Your task to perform on an android device: Go to ESPN.com Image 0: 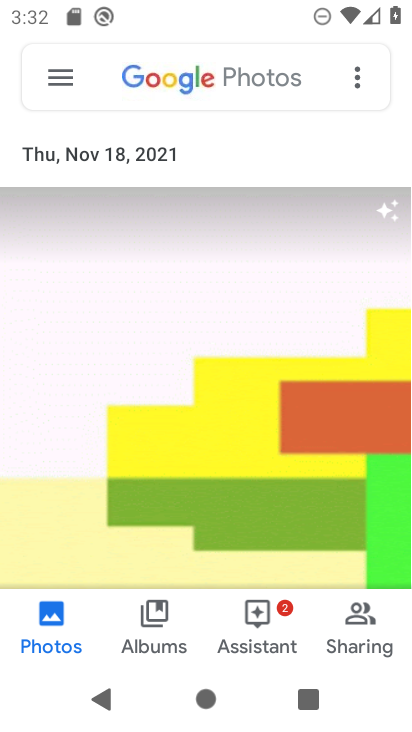
Step 0: press home button
Your task to perform on an android device: Go to ESPN.com Image 1: 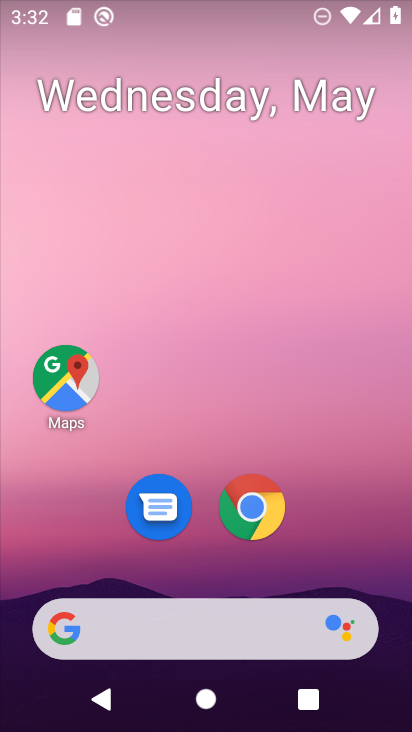
Step 1: click (255, 506)
Your task to perform on an android device: Go to ESPN.com Image 2: 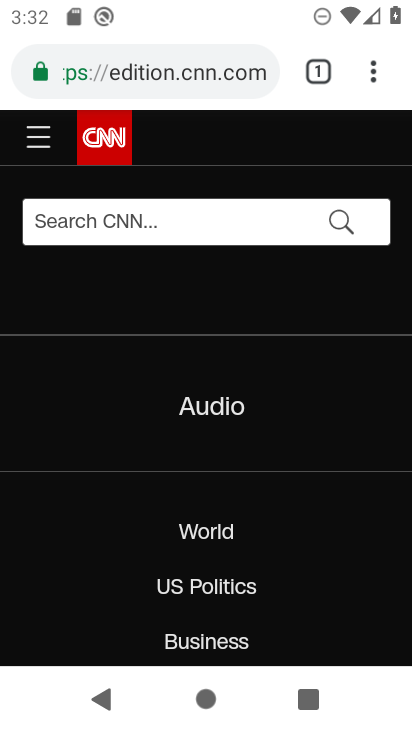
Step 2: click (135, 74)
Your task to perform on an android device: Go to ESPN.com Image 3: 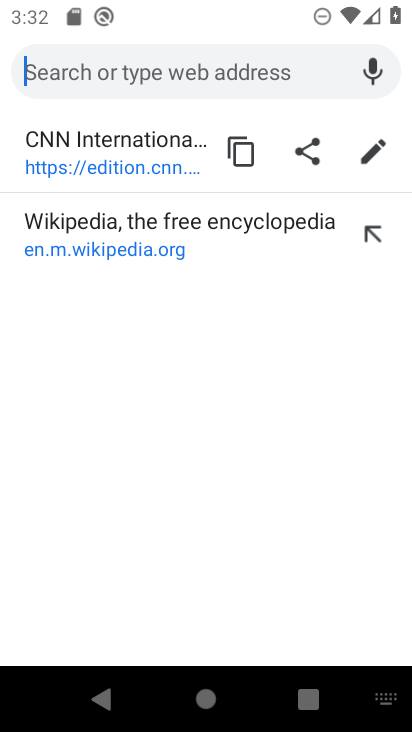
Step 3: type "ESPN.com"
Your task to perform on an android device: Go to ESPN.com Image 4: 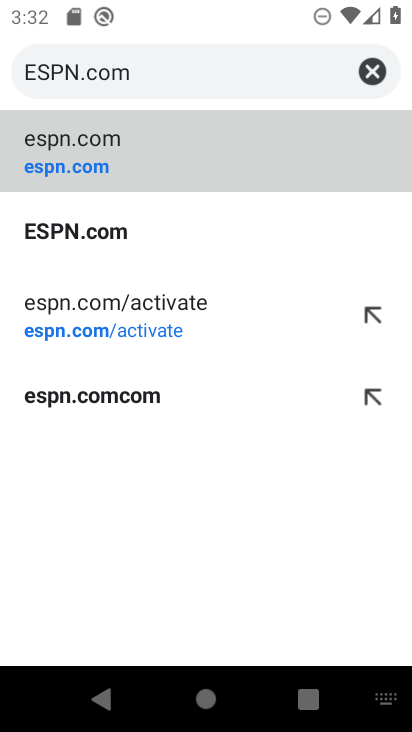
Step 4: click (124, 230)
Your task to perform on an android device: Go to ESPN.com Image 5: 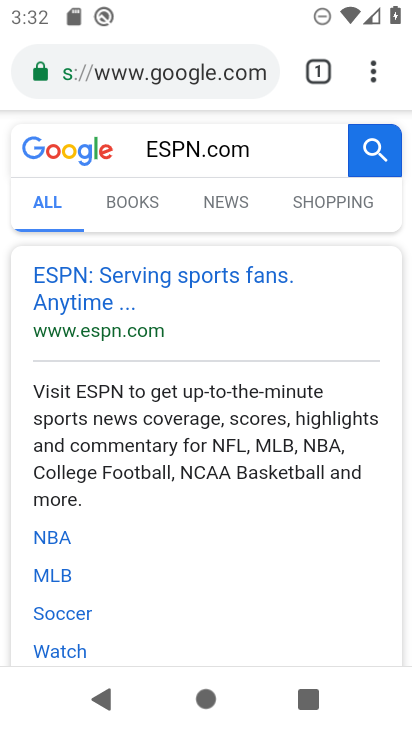
Step 5: task complete